Your task to perform on an android device: delete the emails in spam in the gmail app Image 0: 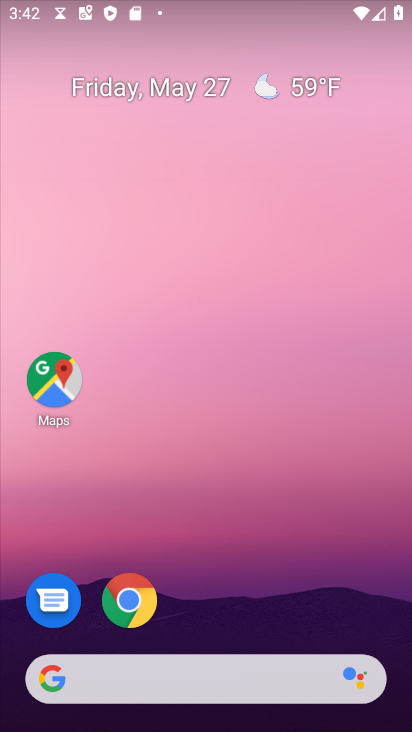
Step 0: drag from (259, 571) to (184, 40)
Your task to perform on an android device: delete the emails in spam in the gmail app Image 1: 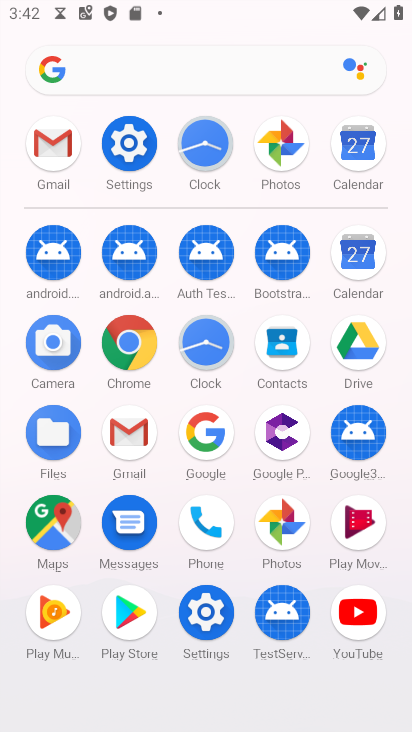
Step 1: click (54, 143)
Your task to perform on an android device: delete the emails in spam in the gmail app Image 2: 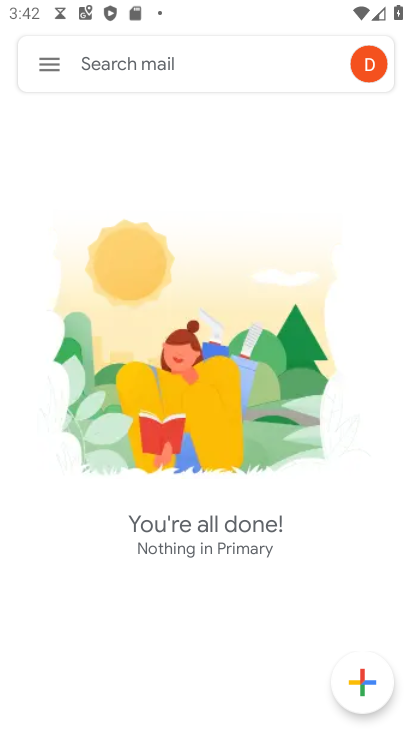
Step 2: click (47, 68)
Your task to perform on an android device: delete the emails in spam in the gmail app Image 3: 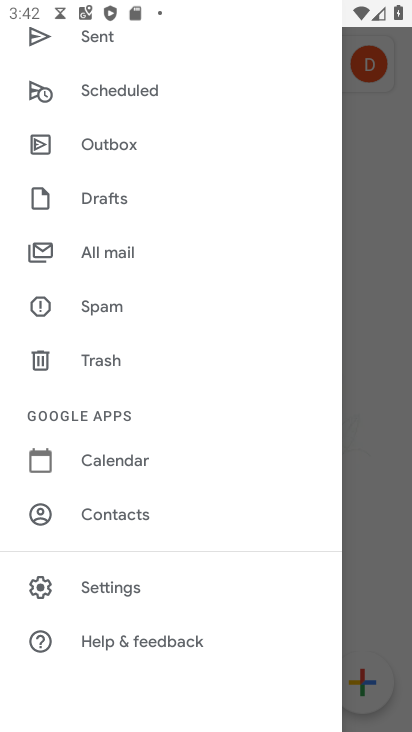
Step 3: click (112, 305)
Your task to perform on an android device: delete the emails in spam in the gmail app Image 4: 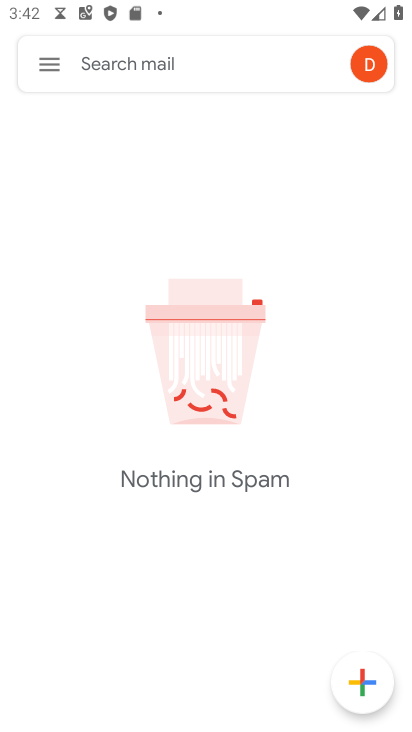
Step 4: task complete